Your task to perform on an android device: Open the calendar and show me this week's events? Image 0: 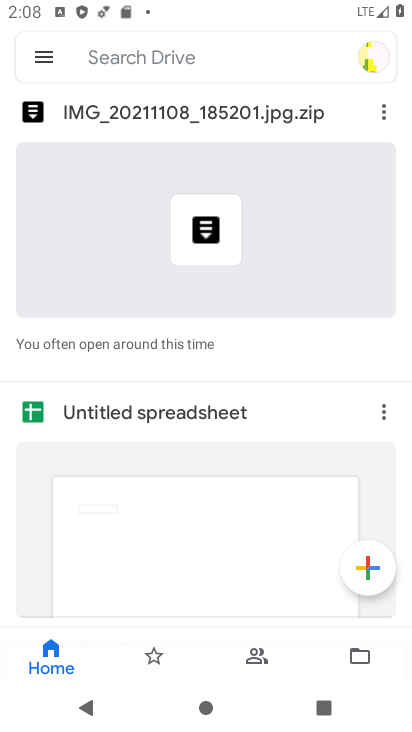
Step 0: press home button
Your task to perform on an android device: Open the calendar and show me this week's events? Image 1: 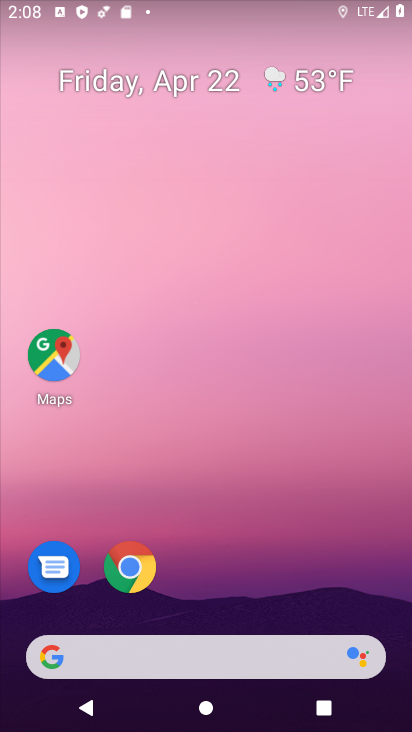
Step 1: drag from (358, 606) to (199, 172)
Your task to perform on an android device: Open the calendar and show me this week's events? Image 2: 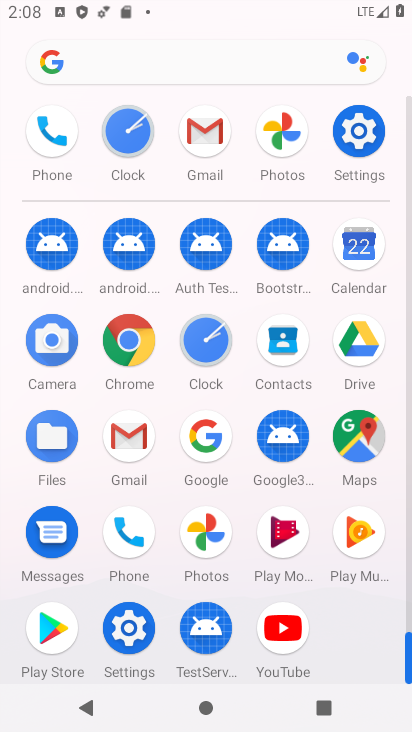
Step 2: click (357, 240)
Your task to perform on an android device: Open the calendar and show me this week's events? Image 3: 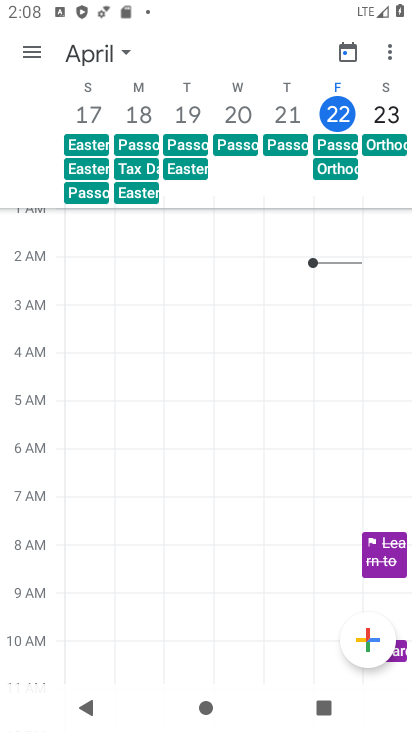
Step 3: click (34, 51)
Your task to perform on an android device: Open the calendar and show me this week's events? Image 4: 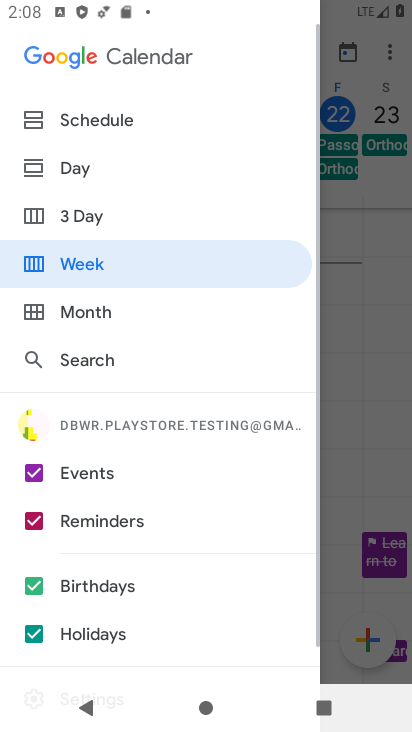
Step 4: click (144, 262)
Your task to perform on an android device: Open the calendar and show me this week's events? Image 5: 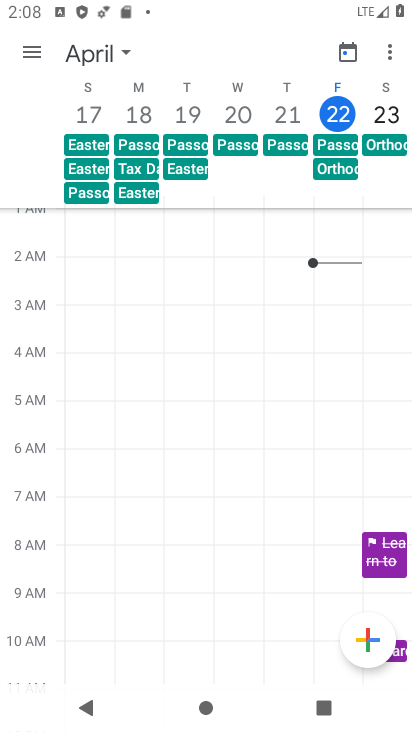
Step 5: task complete